Your task to perform on an android device: Open display settings Image 0: 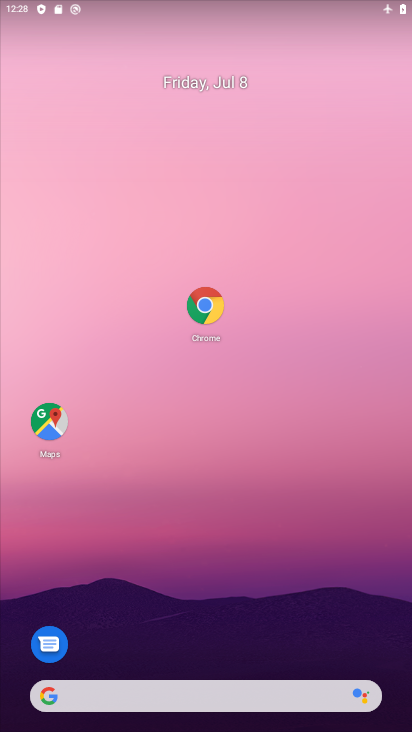
Step 0: press home button
Your task to perform on an android device: Open display settings Image 1: 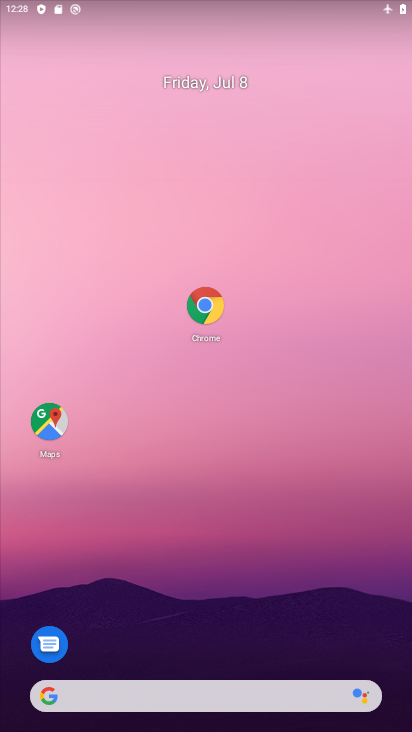
Step 1: drag from (181, 673) to (165, 308)
Your task to perform on an android device: Open display settings Image 2: 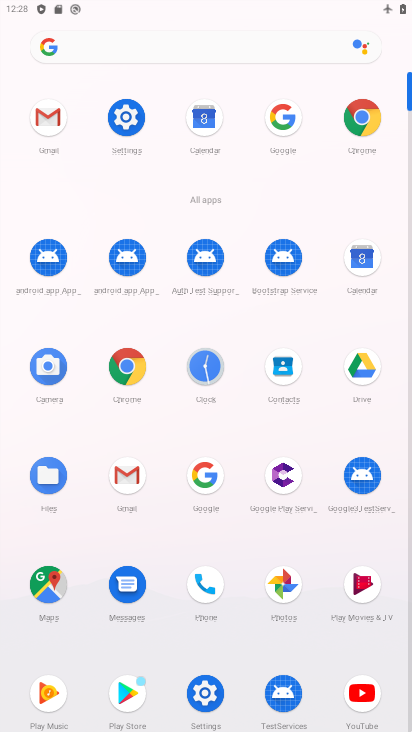
Step 2: click (131, 111)
Your task to perform on an android device: Open display settings Image 3: 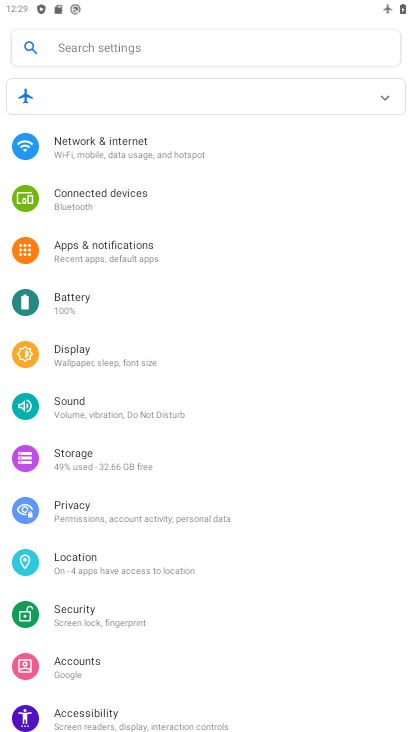
Step 3: click (81, 351)
Your task to perform on an android device: Open display settings Image 4: 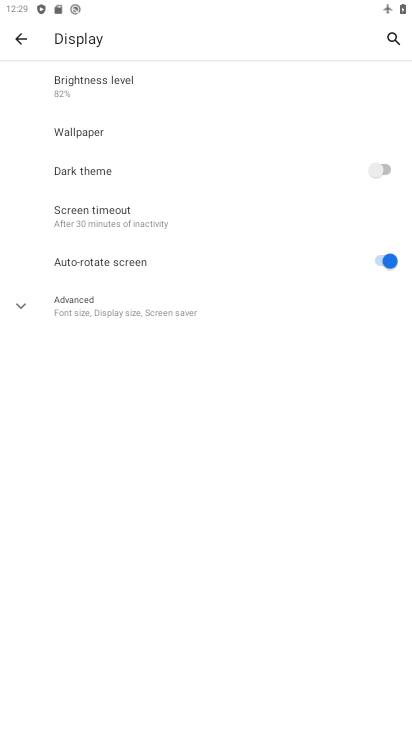
Step 4: click (78, 299)
Your task to perform on an android device: Open display settings Image 5: 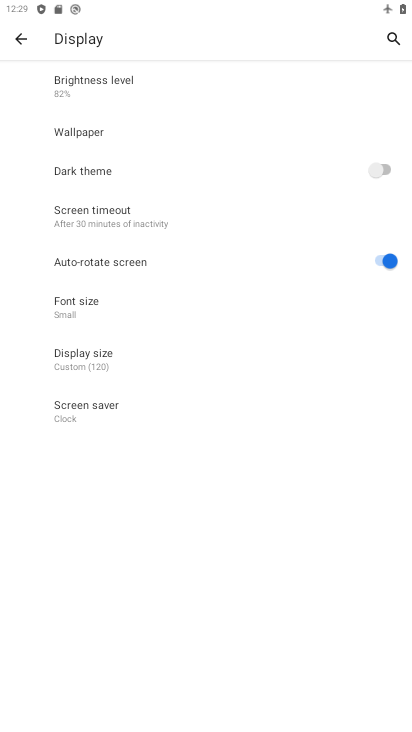
Step 5: task complete